Your task to perform on an android device: see creations saved in the google photos Image 0: 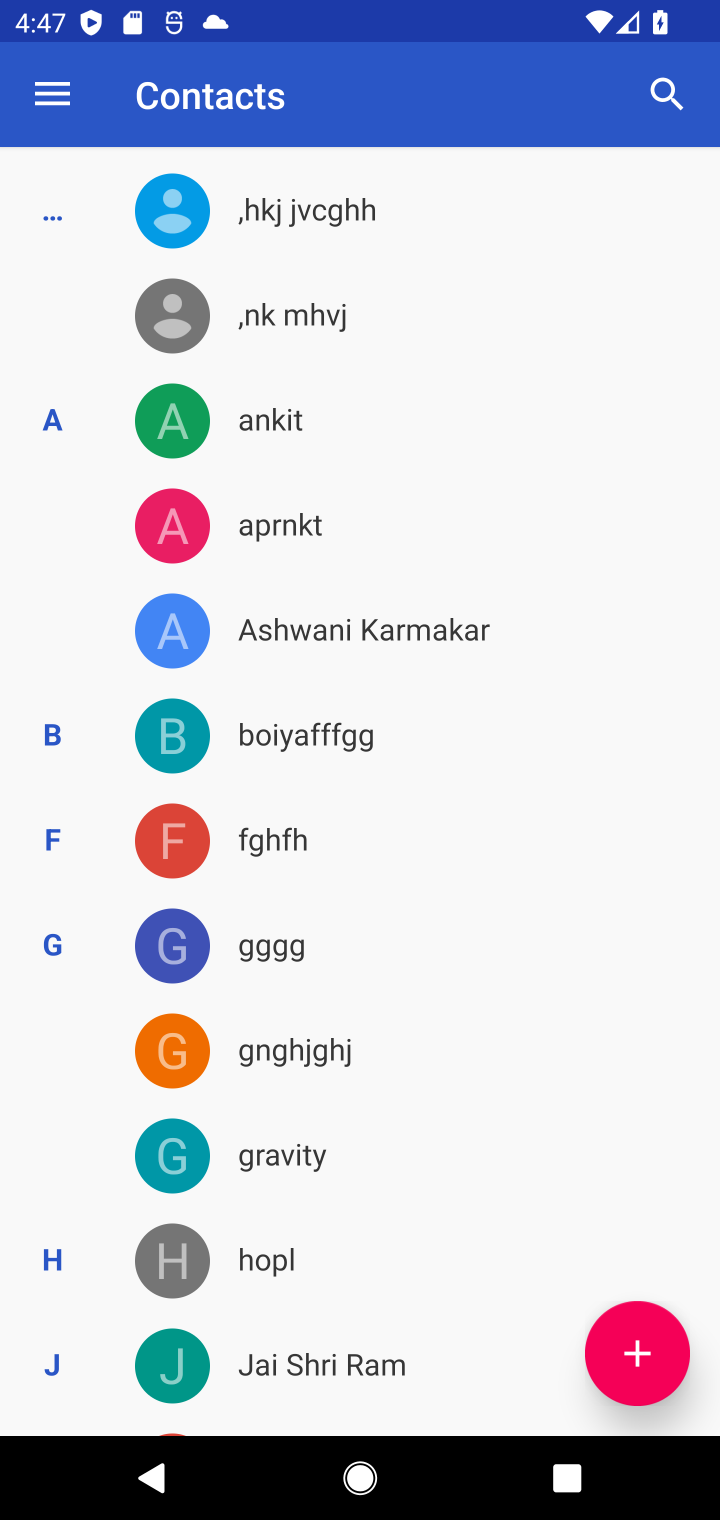
Step 0: press home button
Your task to perform on an android device: see creations saved in the google photos Image 1: 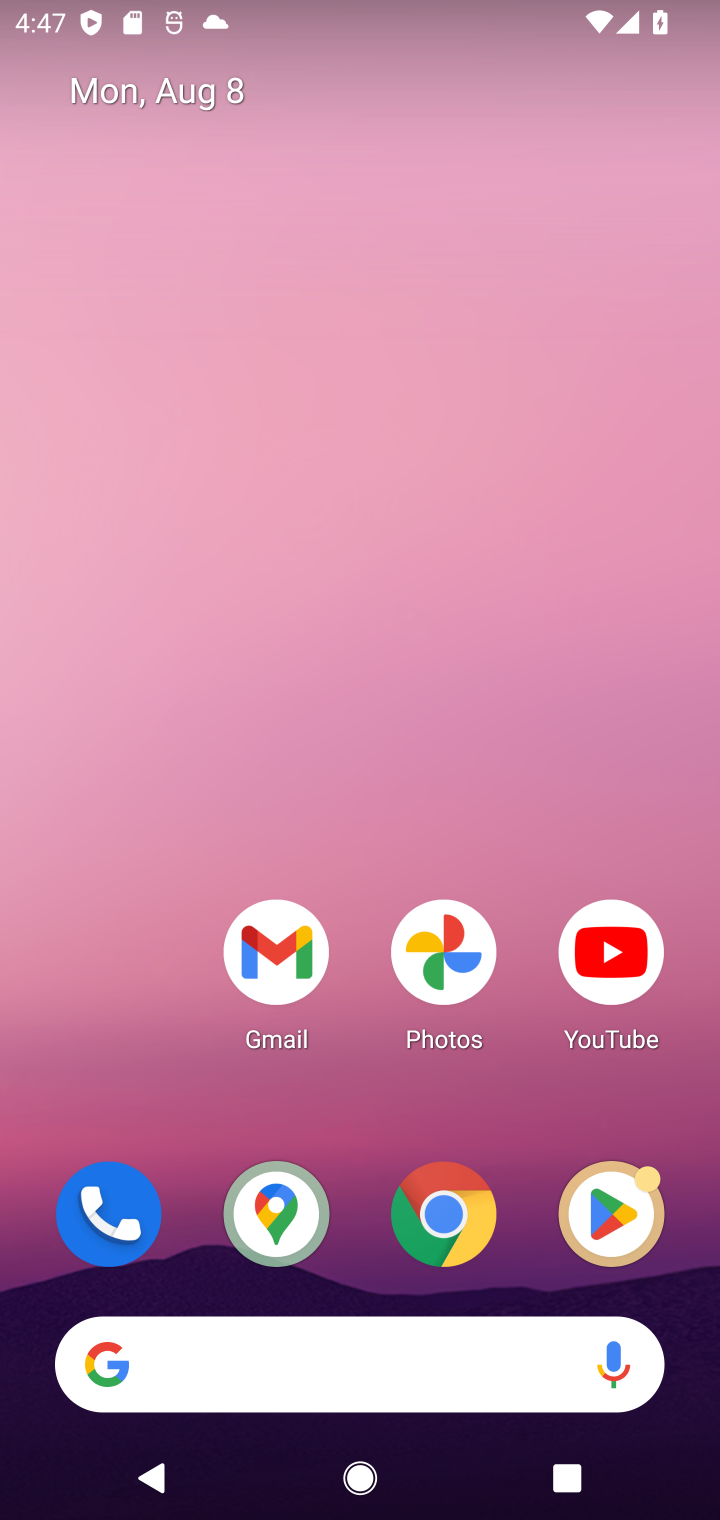
Step 1: drag from (366, 1296) to (357, 70)
Your task to perform on an android device: see creations saved in the google photos Image 2: 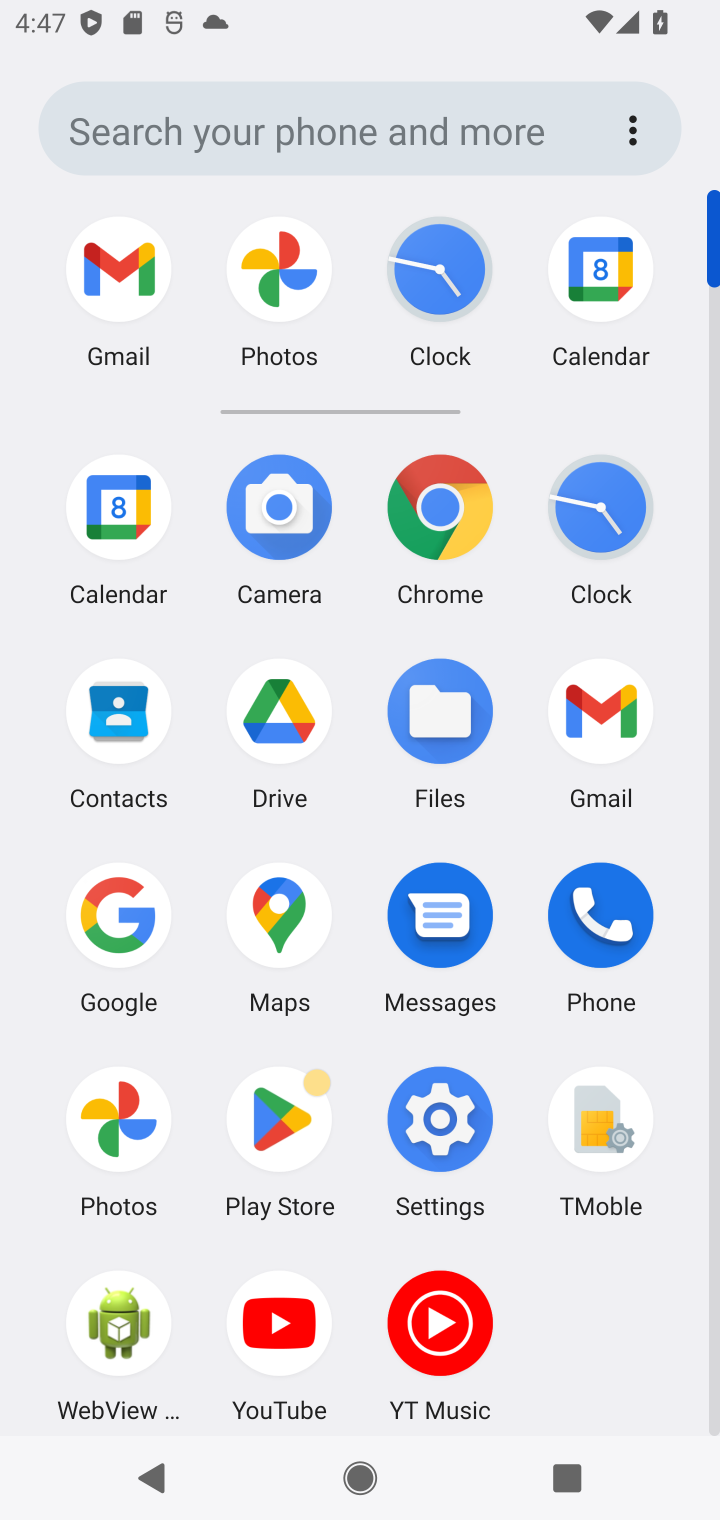
Step 2: click (124, 1128)
Your task to perform on an android device: see creations saved in the google photos Image 3: 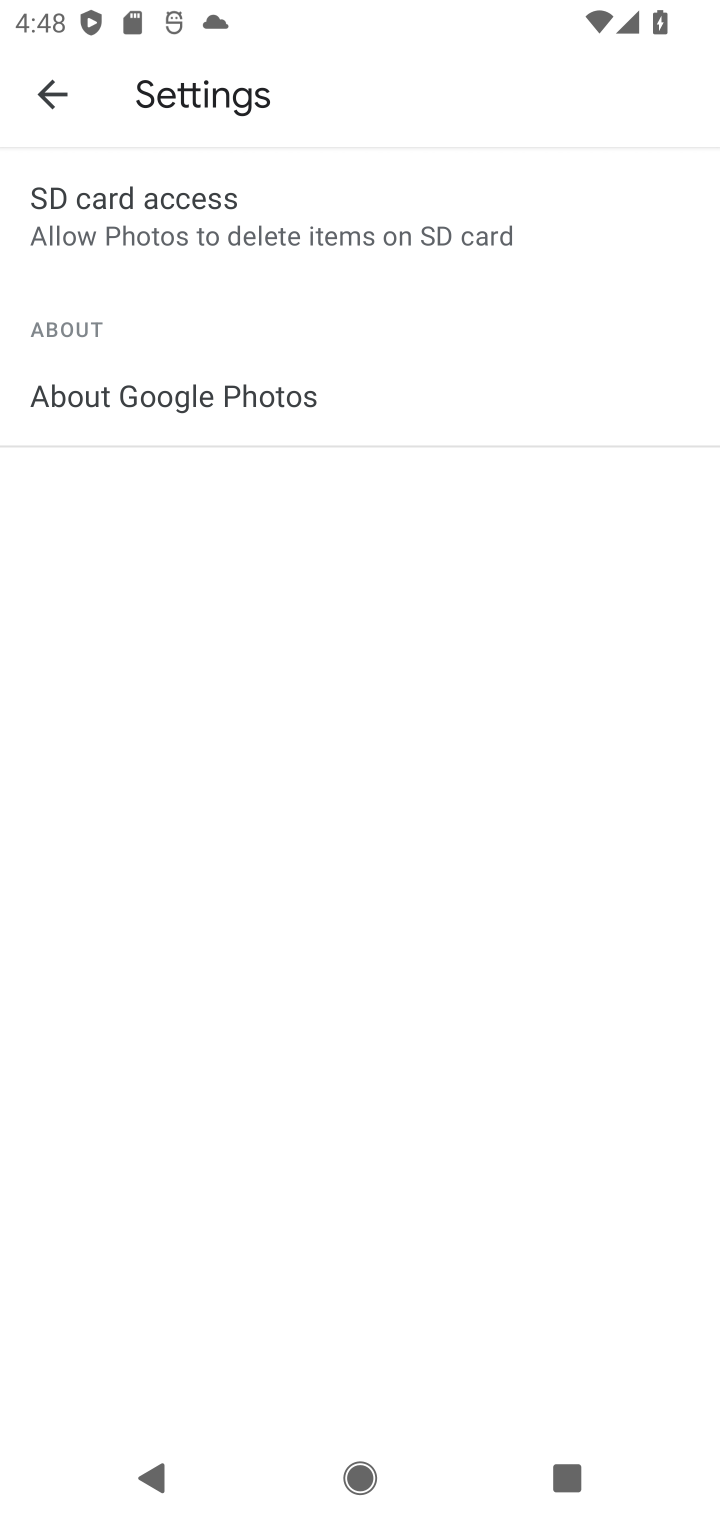
Step 3: click (52, 91)
Your task to perform on an android device: see creations saved in the google photos Image 4: 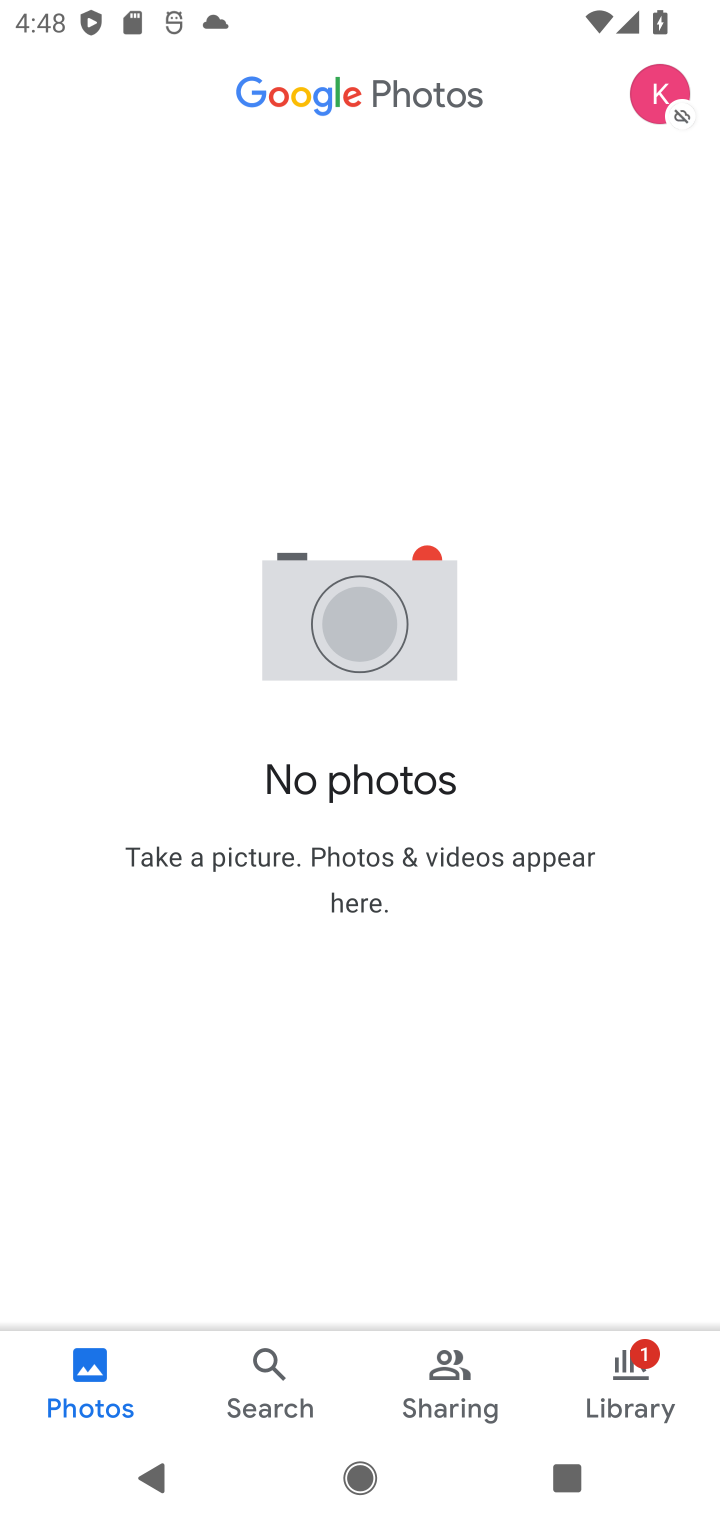
Step 4: click (269, 1357)
Your task to perform on an android device: see creations saved in the google photos Image 5: 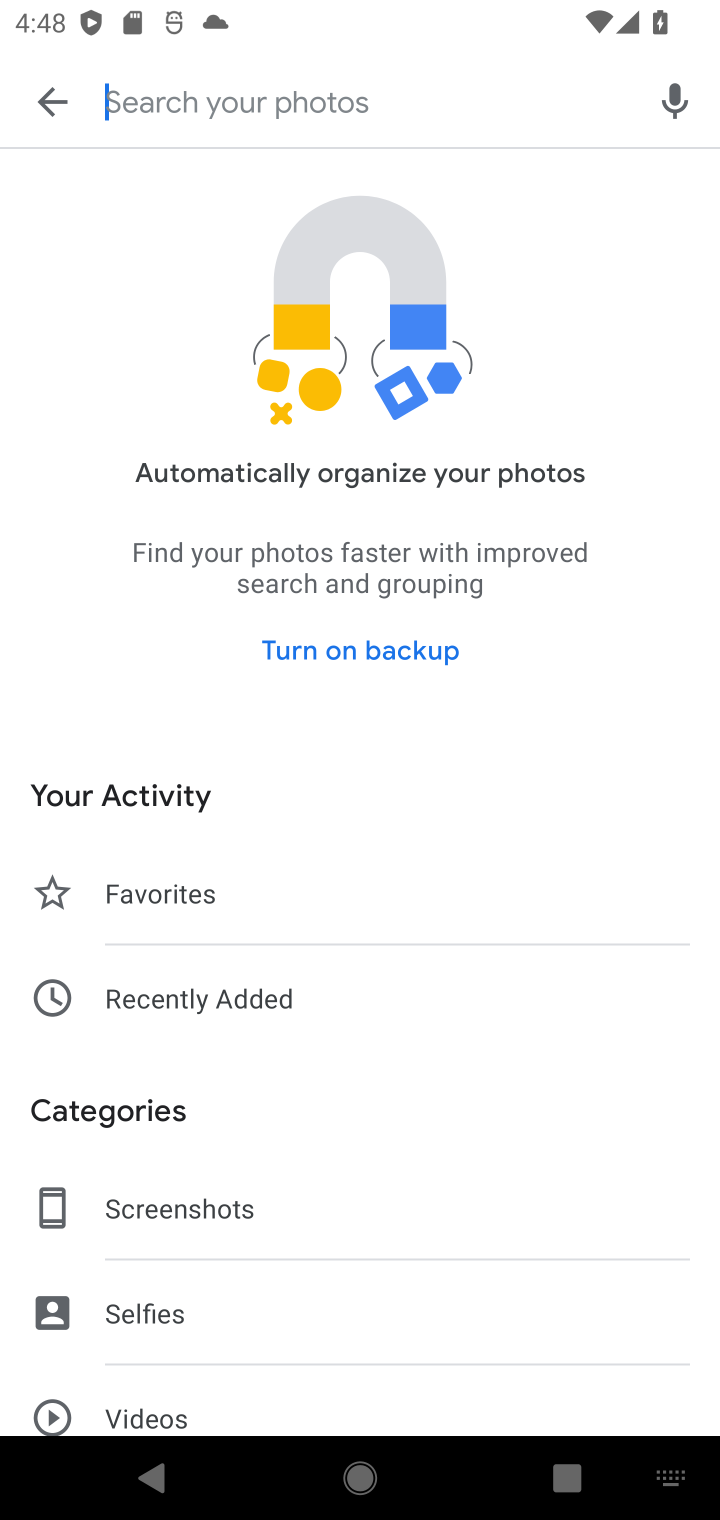
Step 5: drag from (186, 1338) to (211, 860)
Your task to perform on an android device: see creations saved in the google photos Image 6: 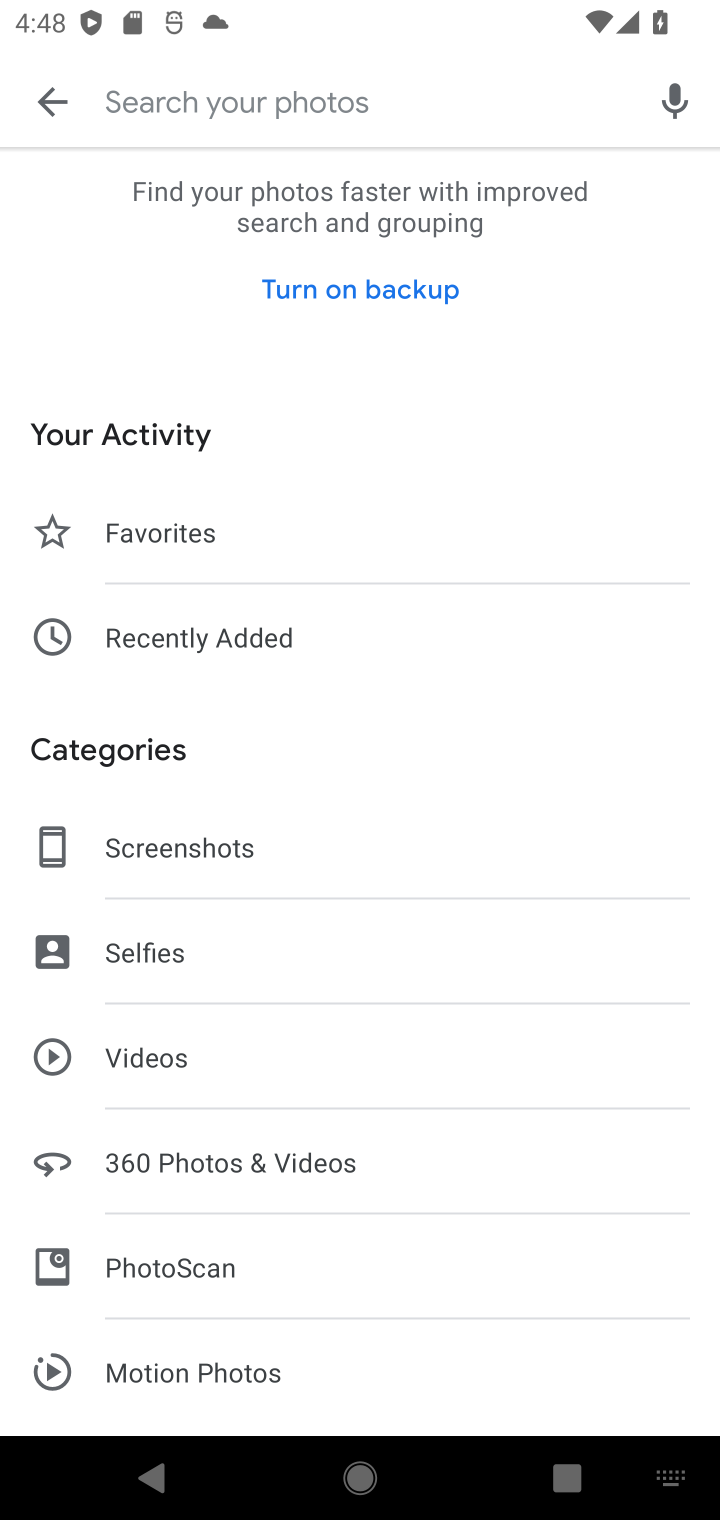
Step 6: drag from (237, 1320) to (241, 815)
Your task to perform on an android device: see creations saved in the google photos Image 7: 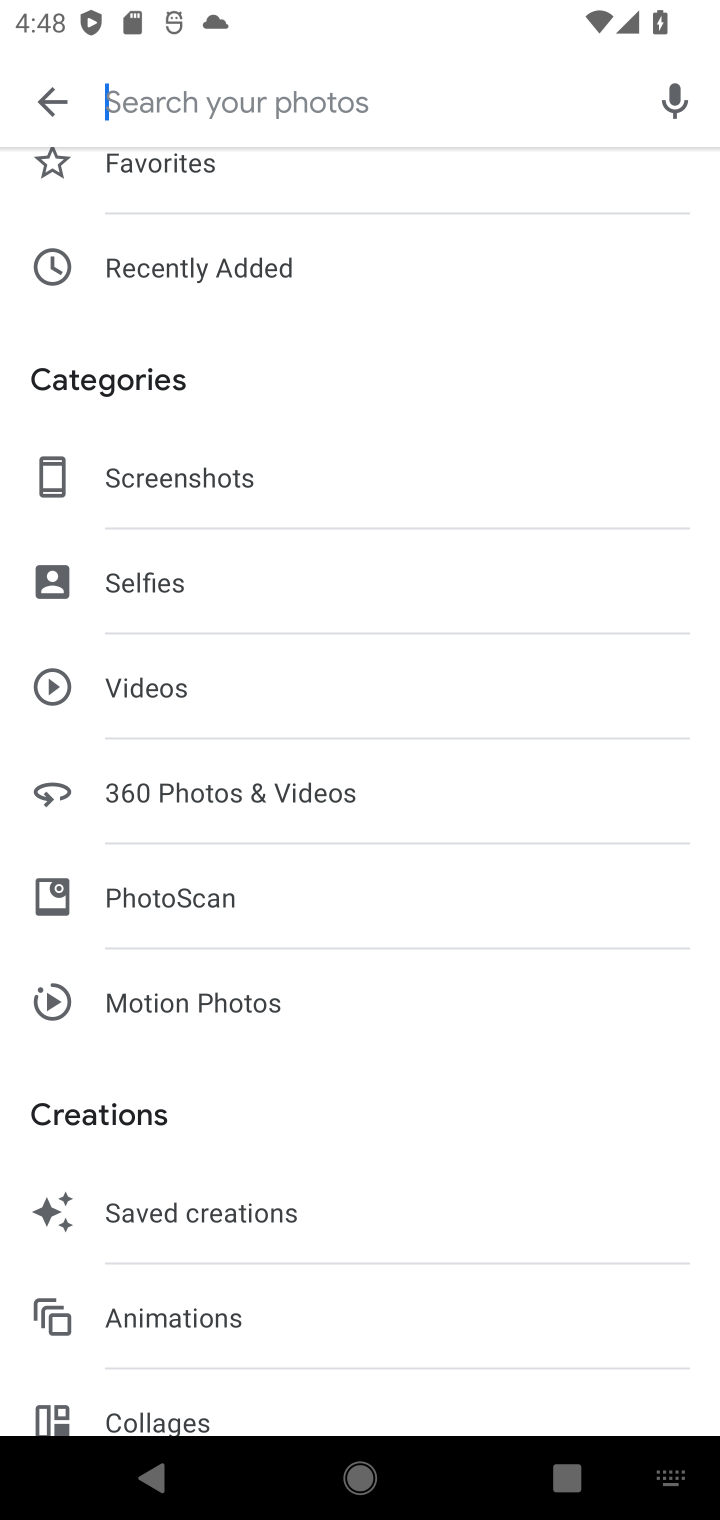
Step 7: drag from (229, 1356) to (275, 827)
Your task to perform on an android device: see creations saved in the google photos Image 8: 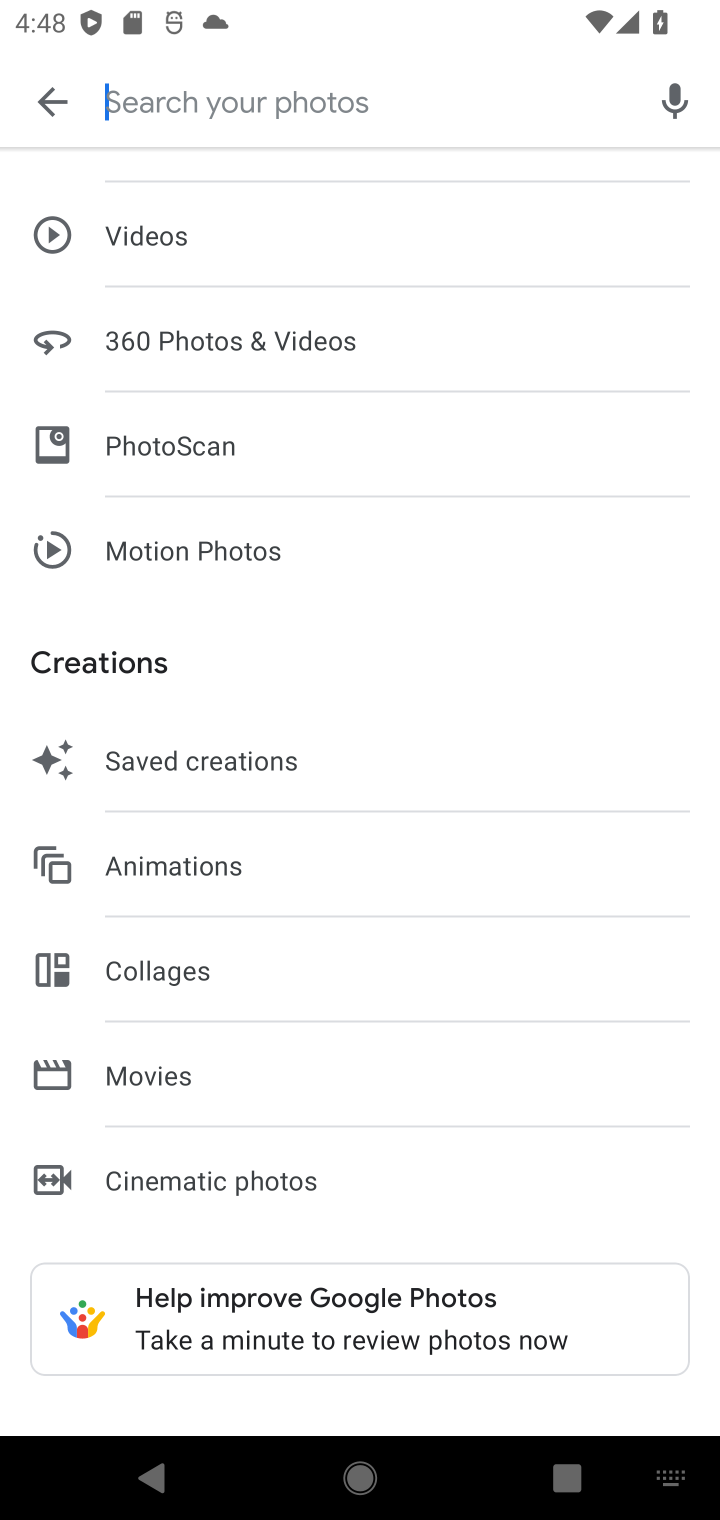
Step 8: click (183, 762)
Your task to perform on an android device: see creations saved in the google photos Image 9: 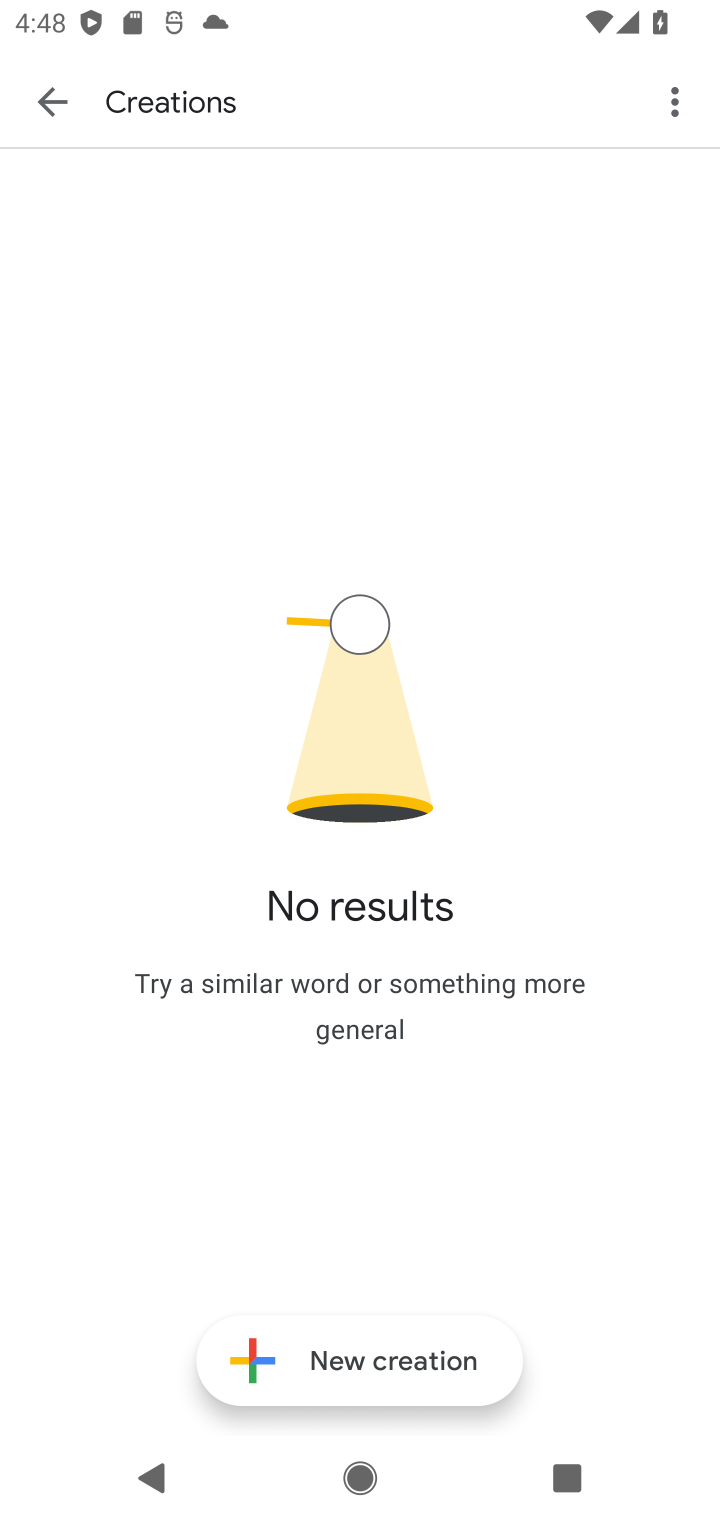
Step 9: task complete